Your task to perform on an android device: open sync settings in chrome Image 0: 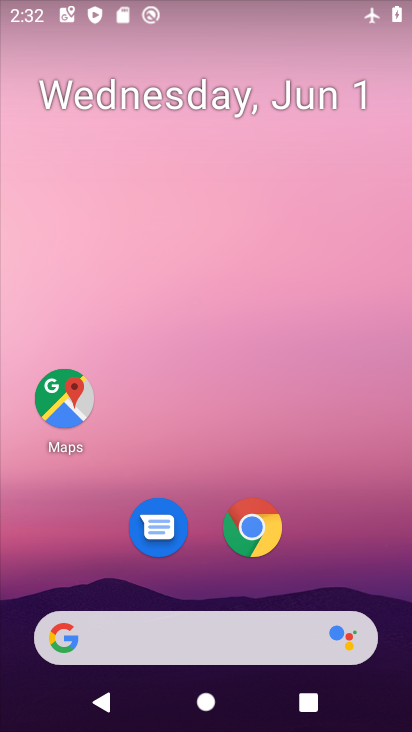
Step 0: click (259, 527)
Your task to perform on an android device: open sync settings in chrome Image 1: 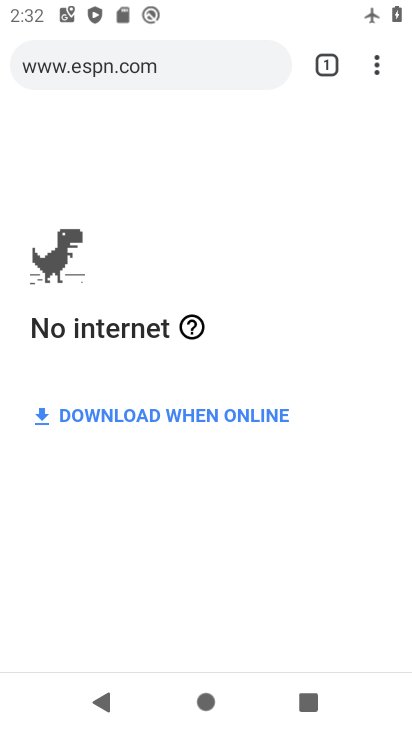
Step 1: click (378, 65)
Your task to perform on an android device: open sync settings in chrome Image 2: 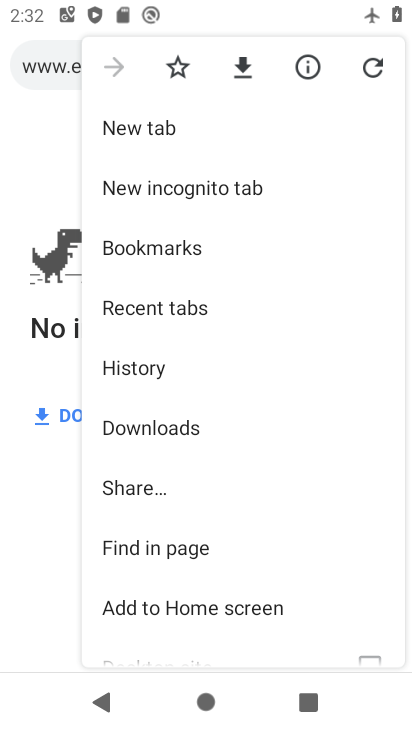
Step 2: drag from (199, 484) to (265, 384)
Your task to perform on an android device: open sync settings in chrome Image 3: 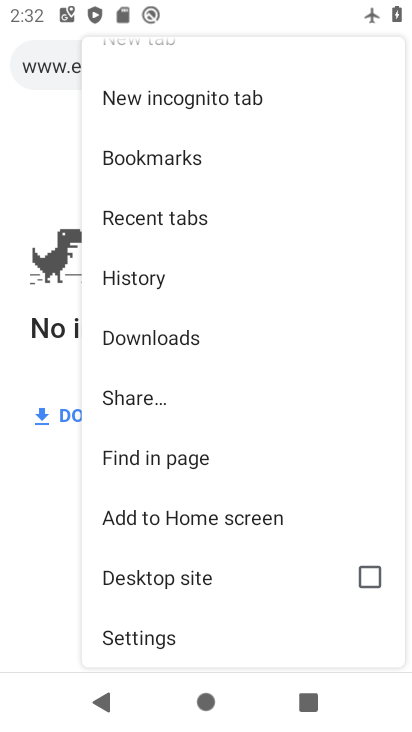
Step 3: drag from (187, 604) to (268, 507)
Your task to perform on an android device: open sync settings in chrome Image 4: 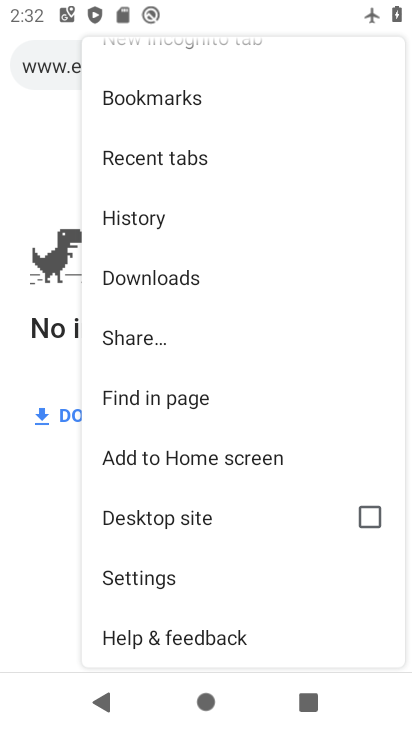
Step 4: click (173, 575)
Your task to perform on an android device: open sync settings in chrome Image 5: 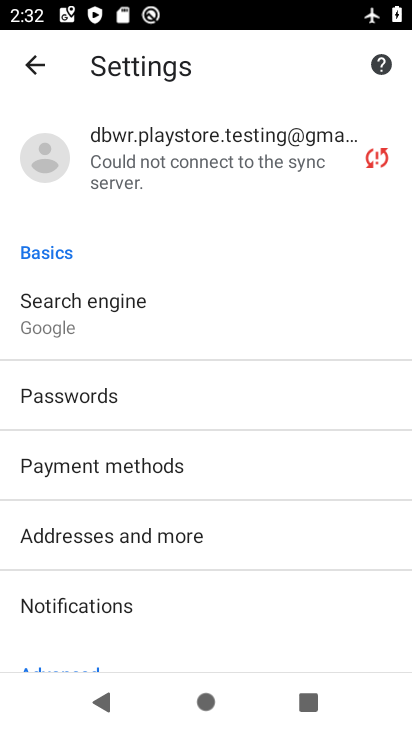
Step 5: drag from (180, 598) to (172, 493)
Your task to perform on an android device: open sync settings in chrome Image 6: 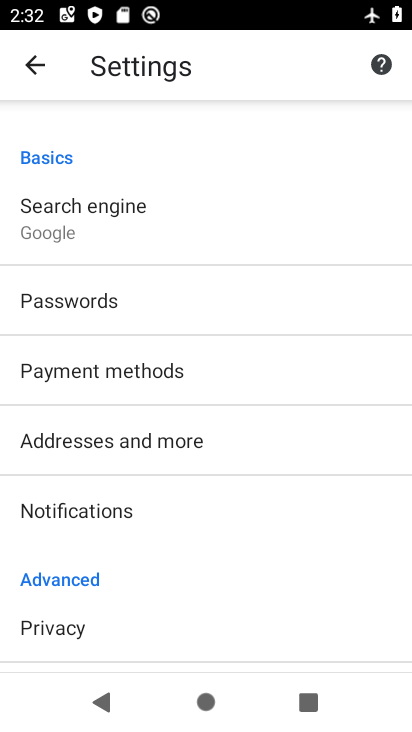
Step 6: drag from (147, 561) to (126, 440)
Your task to perform on an android device: open sync settings in chrome Image 7: 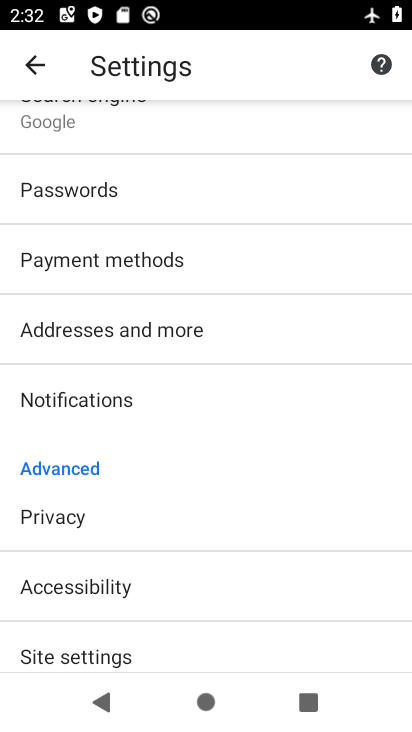
Step 7: drag from (169, 581) to (172, 458)
Your task to perform on an android device: open sync settings in chrome Image 8: 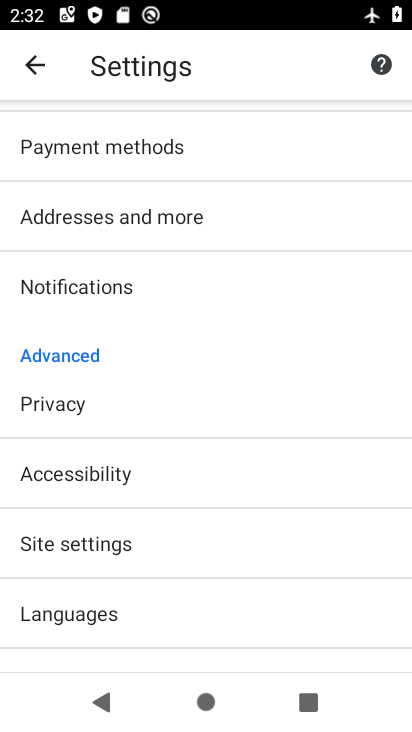
Step 8: click (119, 533)
Your task to perform on an android device: open sync settings in chrome Image 9: 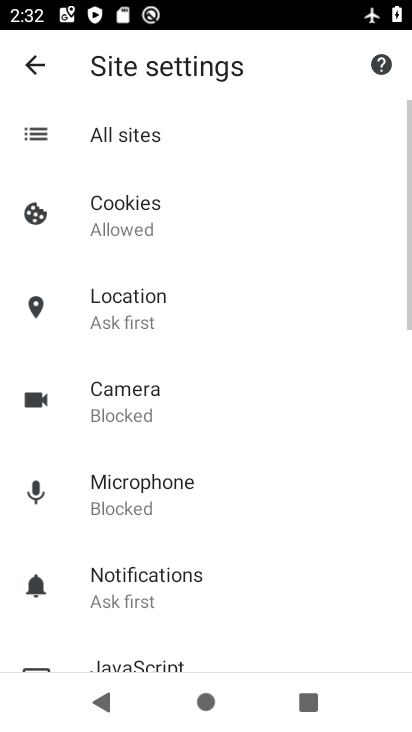
Step 9: drag from (199, 533) to (205, 451)
Your task to perform on an android device: open sync settings in chrome Image 10: 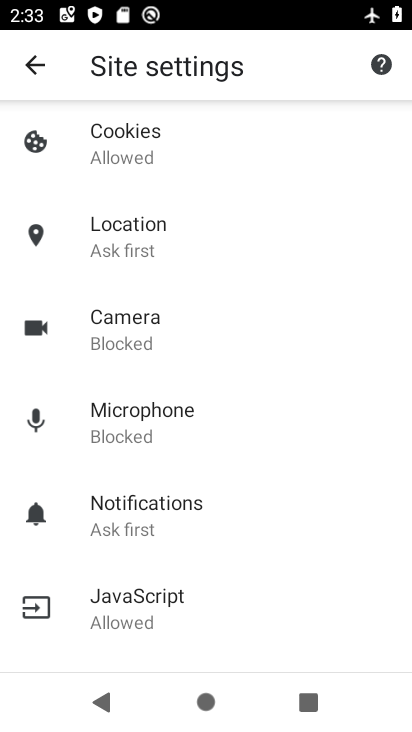
Step 10: drag from (177, 527) to (188, 450)
Your task to perform on an android device: open sync settings in chrome Image 11: 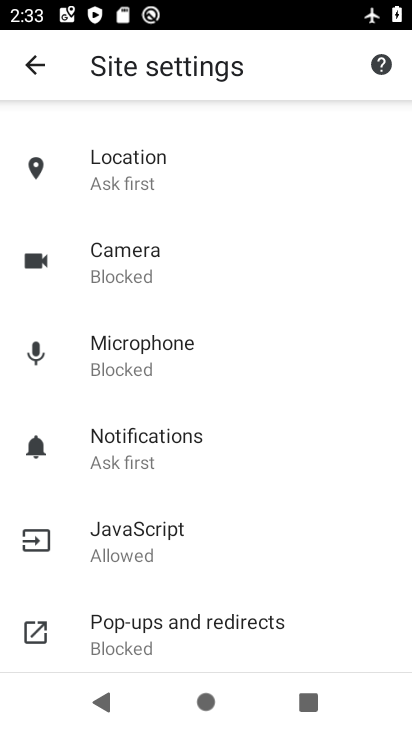
Step 11: drag from (152, 586) to (173, 499)
Your task to perform on an android device: open sync settings in chrome Image 12: 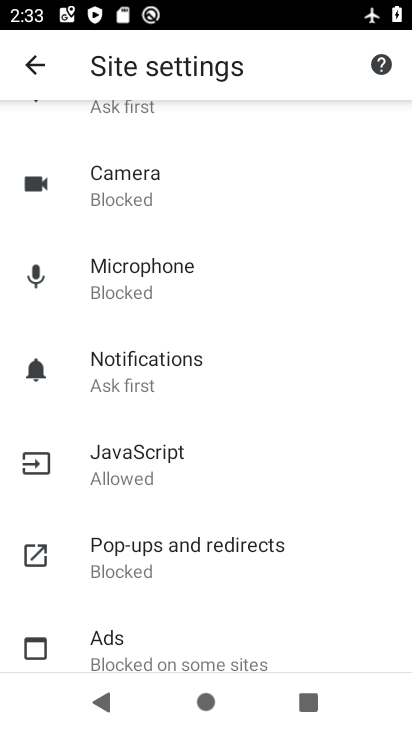
Step 12: drag from (149, 603) to (175, 469)
Your task to perform on an android device: open sync settings in chrome Image 13: 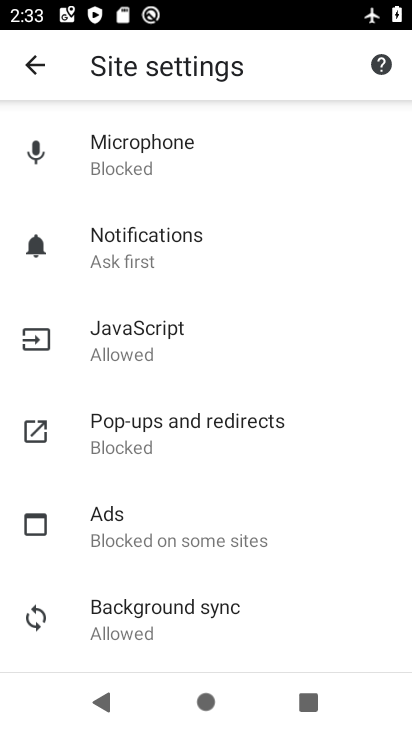
Step 13: drag from (138, 567) to (155, 447)
Your task to perform on an android device: open sync settings in chrome Image 14: 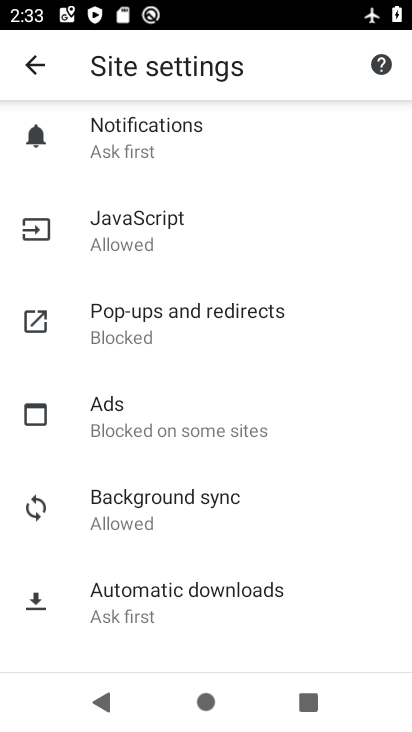
Step 14: click (171, 491)
Your task to perform on an android device: open sync settings in chrome Image 15: 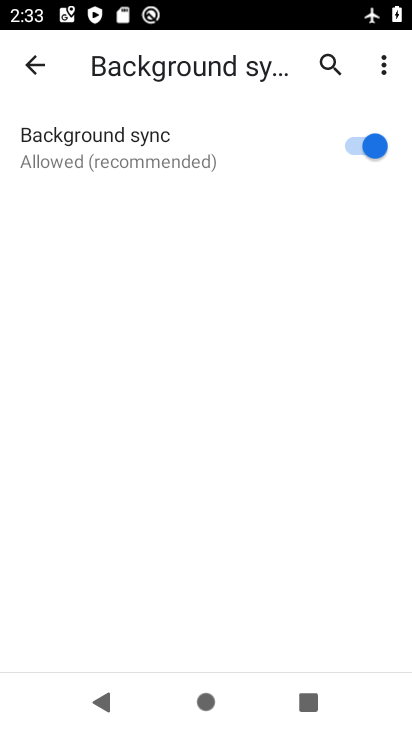
Step 15: task complete